Your task to perform on an android device: turn on bluetooth scan Image 0: 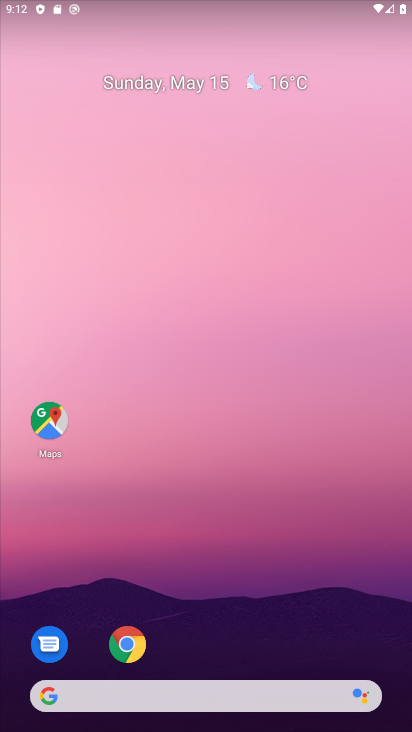
Step 0: drag from (205, 672) to (201, 215)
Your task to perform on an android device: turn on bluetooth scan Image 1: 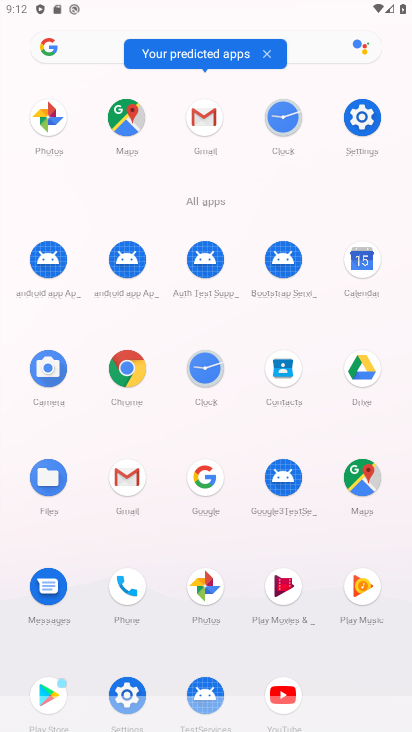
Step 1: click (359, 114)
Your task to perform on an android device: turn on bluetooth scan Image 2: 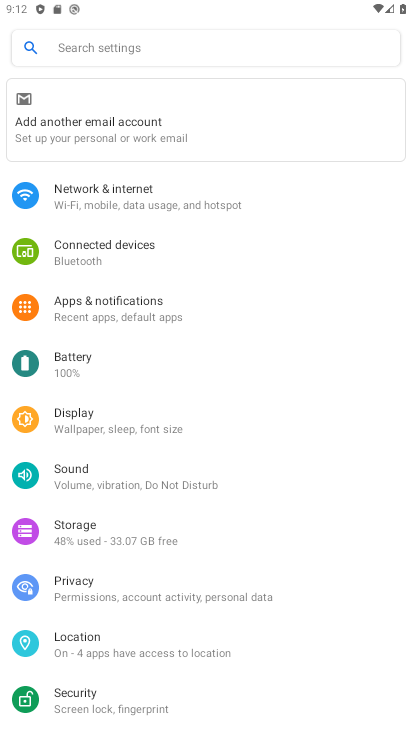
Step 2: click (132, 648)
Your task to perform on an android device: turn on bluetooth scan Image 3: 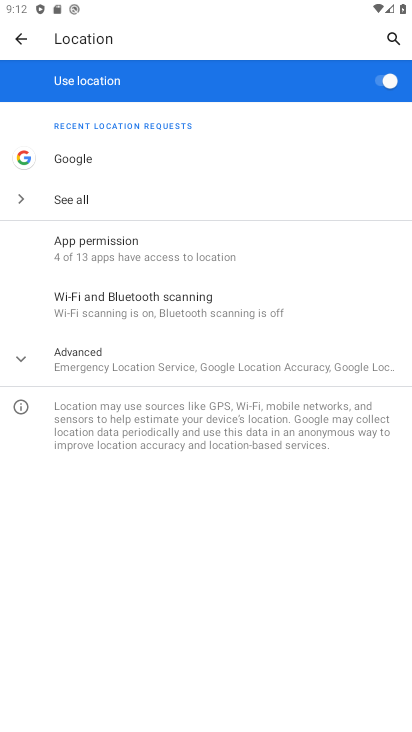
Step 3: task complete